Your task to perform on an android device: Open Reddit.com Image 0: 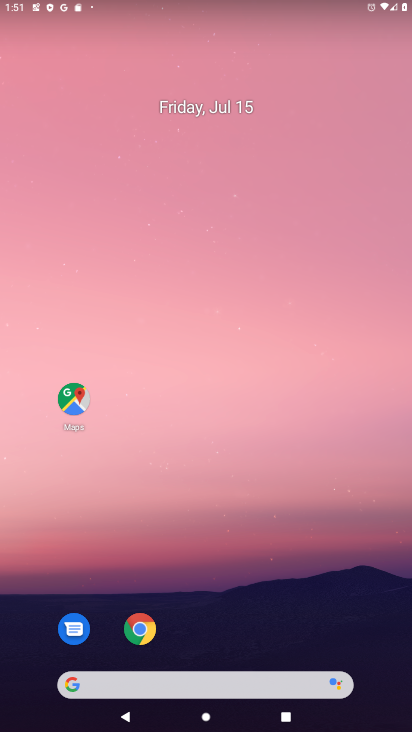
Step 0: drag from (276, 586) to (207, 188)
Your task to perform on an android device: Open Reddit.com Image 1: 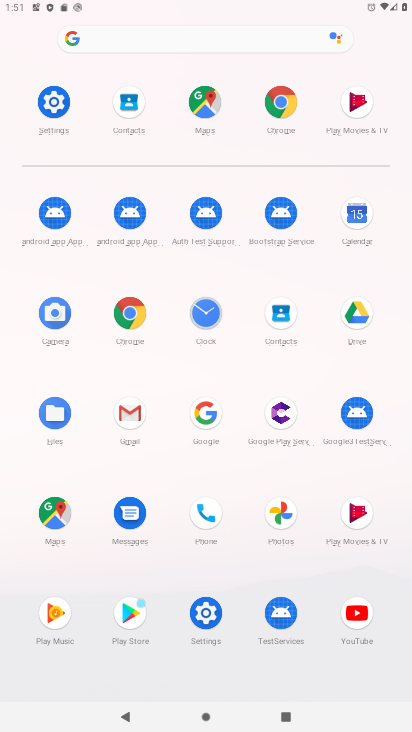
Step 1: click (283, 102)
Your task to perform on an android device: Open Reddit.com Image 2: 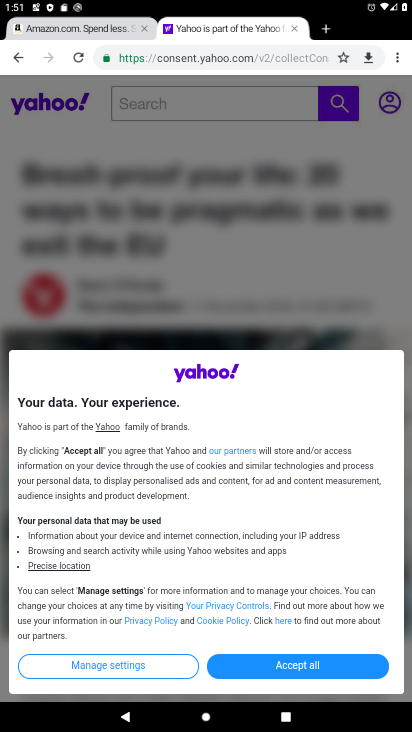
Step 2: click (277, 57)
Your task to perform on an android device: Open Reddit.com Image 3: 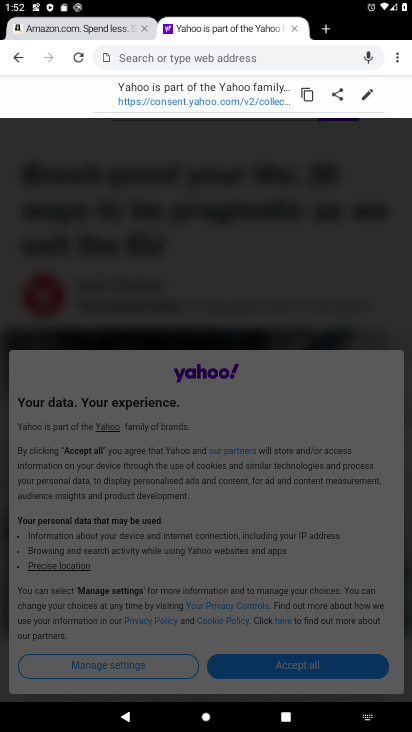
Step 3: type "Reddit.com"
Your task to perform on an android device: Open Reddit.com Image 4: 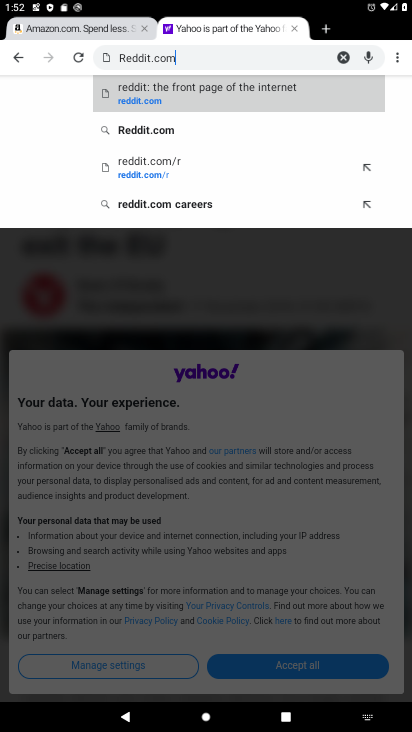
Step 4: click (163, 100)
Your task to perform on an android device: Open Reddit.com Image 5: 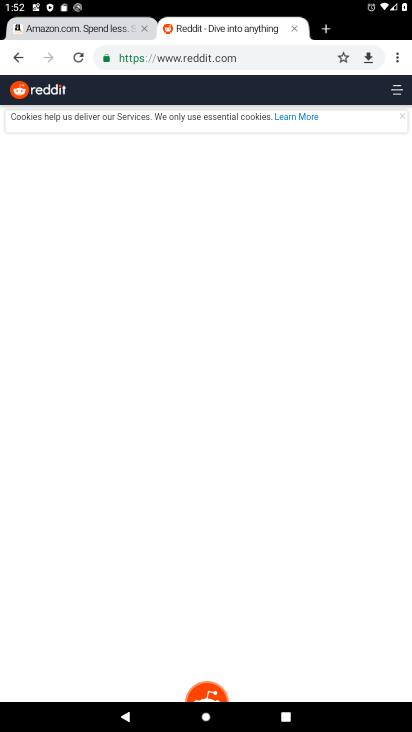
Step 5: task complete